Your task to perform on an android device: Go to Google Image 0: 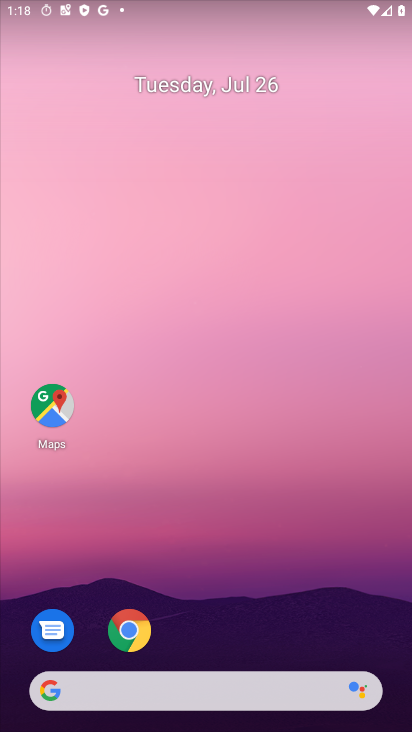
Step 0: drag from (248, 620) to (206, 105)
Your task to perform on an android device: Go to Google Image 1: 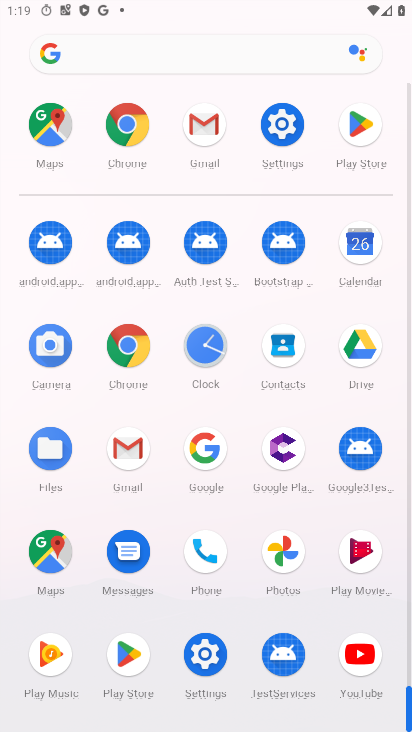
Step 1: click (212, 449)
Your task to perform on an android device: Go to Google Image 2: 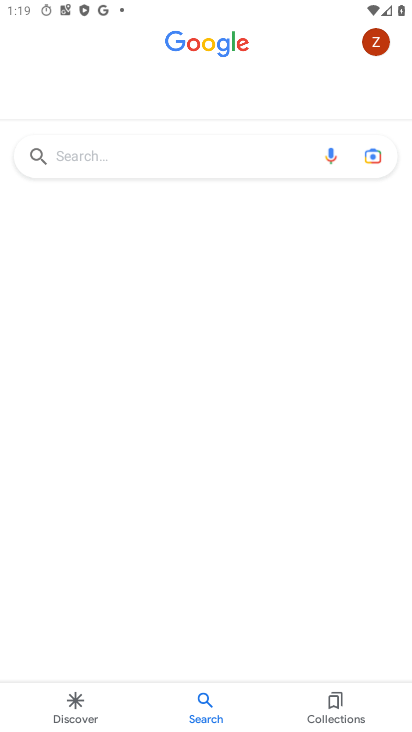
Step 2: task complete